Your task to perform on an android device: What's the weather today? Image 0: 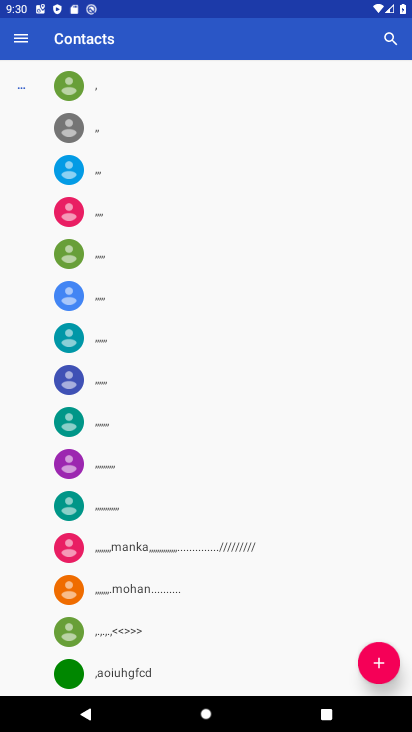
Step 0: press home button
Your task to perform on an android device: What's the weather today? Image 1: 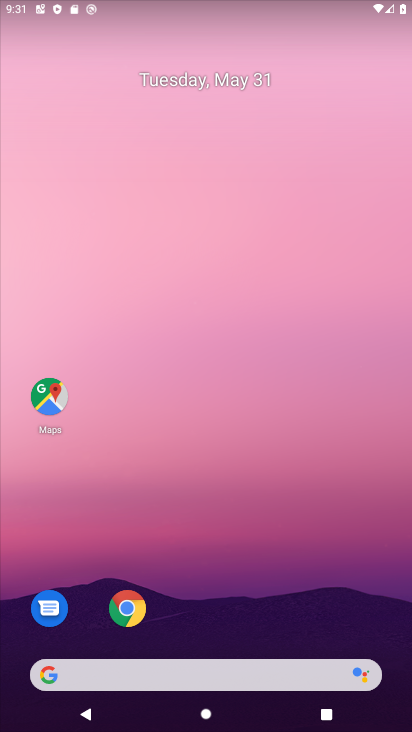
Step 1: task complete